Your task to perform on an android device: turn off airplane mode Image 0: 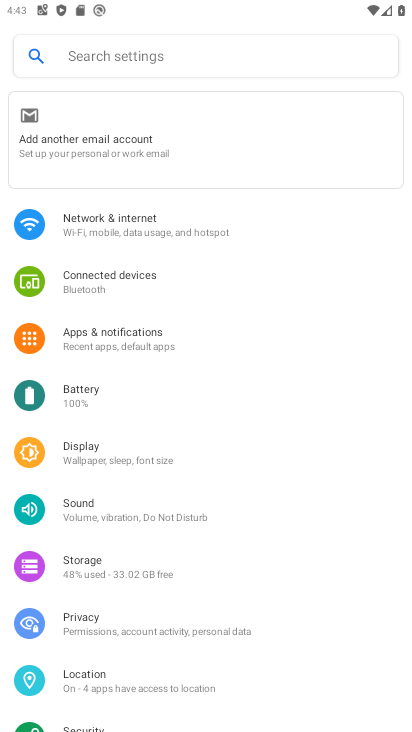
Step 0: drag from (338, 10) to (233, 676)
Your task to perform on an android device: turn off airplane mode Image 1: 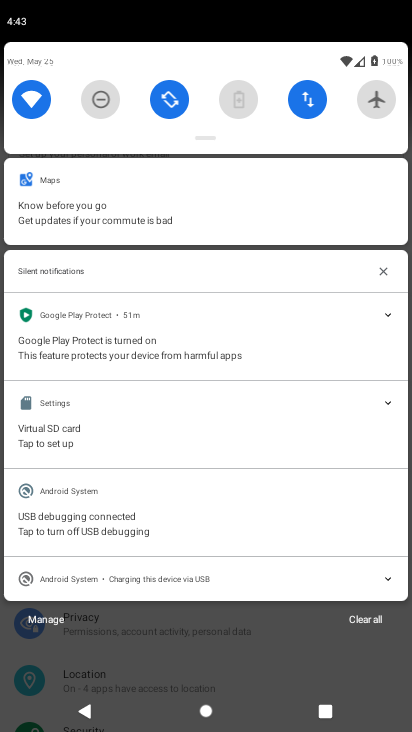
Step 1: task complete